Your task to perform on an android device: Add dell xps to the cart on walmart.com, then select checkout. Image 0: 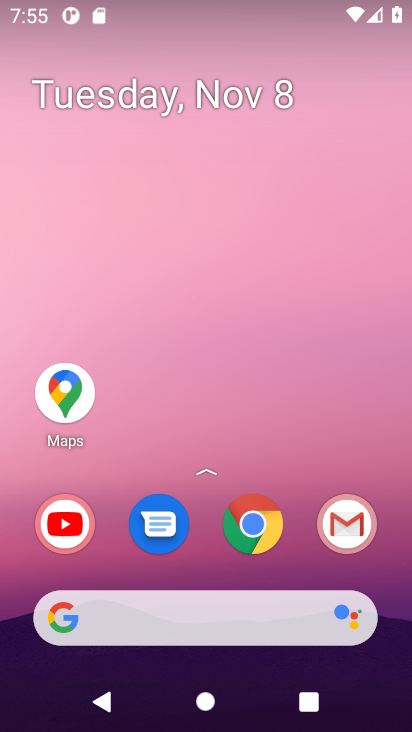
Step 0: click (263, 539)
Your task to perform on an android device: Add dell xps to the cart on walmart.com, then select checkout. Image 1: 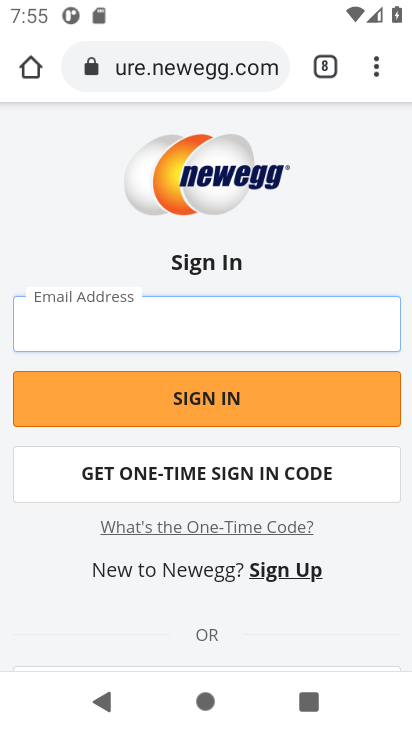
Step 1: click (201, 63)
Your task to perform on an android device: Add dell xps to the cart on walmart.com, then select checkout. Image 2: 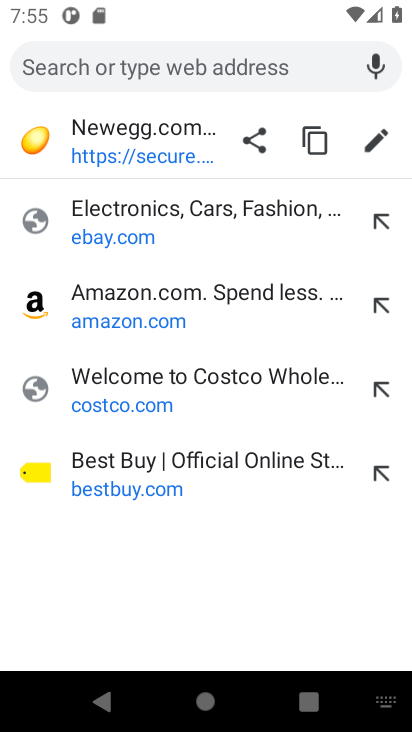
Step 2: type "walmart.com"
Your task to perform on an android device: Add dell xps to the cart on walmart.com, then select checkout. Image 3: 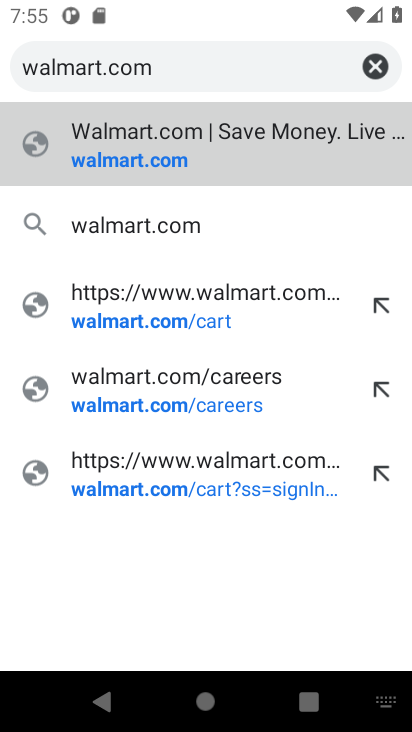
Step 3: click (166, 163)
Your task to perform on an android device: Add dell xps to the cart on walmart.com, then select checkout. Image 4: 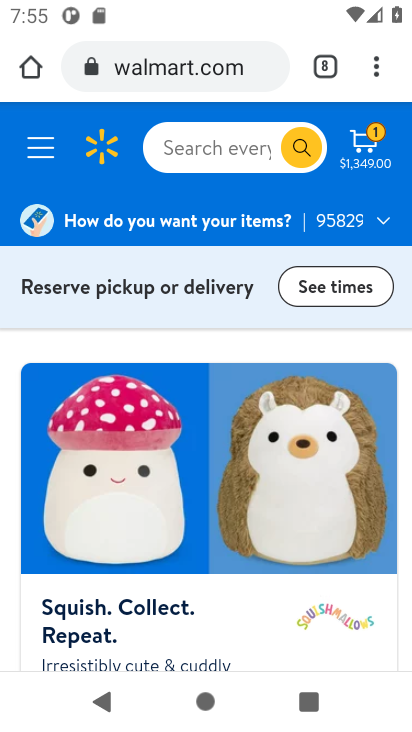
Step 4: click (177, 158)
Your task to perform on an android device: Add dell xps to the cart on walmart.com, then select checkout. Image 5: 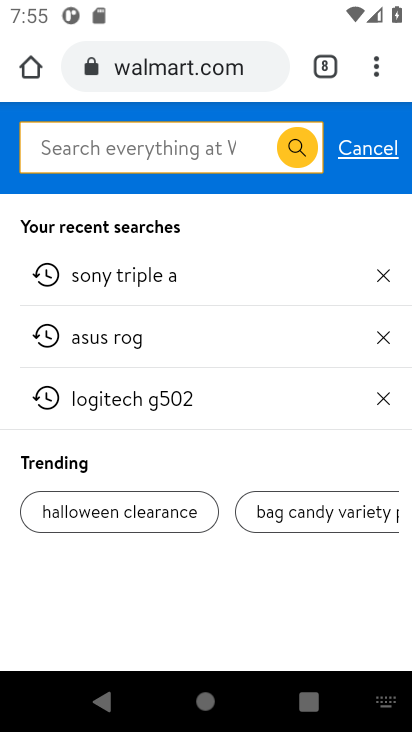
Step 5: type "dell xps "
Your task to perform on an android device: Add dell xps to the cart on walmart.com, then select checkout. Image 6: 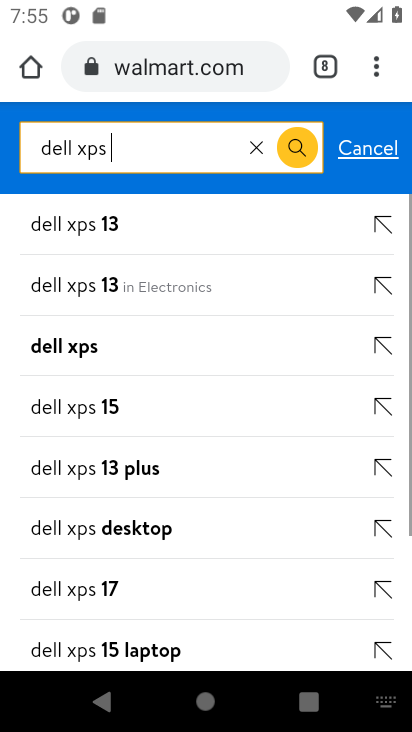
Step 6: click (77, 348)
Your task to perform on an android device: Add dell xps to the cart on walmart.com, then select checkout. Image 7: 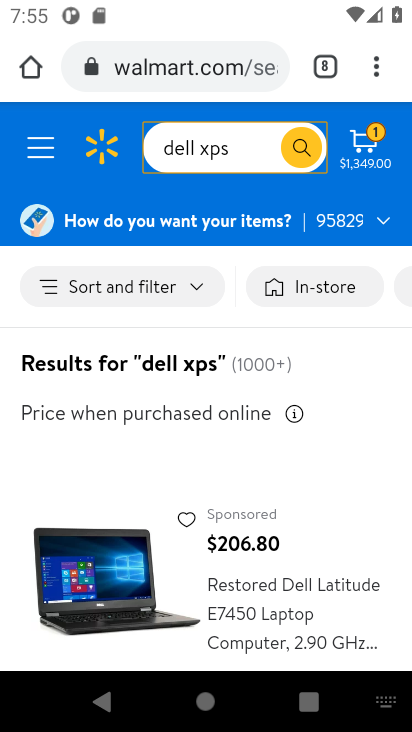
Step 7: drag from (253, 541) to (215, 285)
Your task to perform on an android device: Add dell xps to the cart on walmart.com, then select checkout. Image 8: 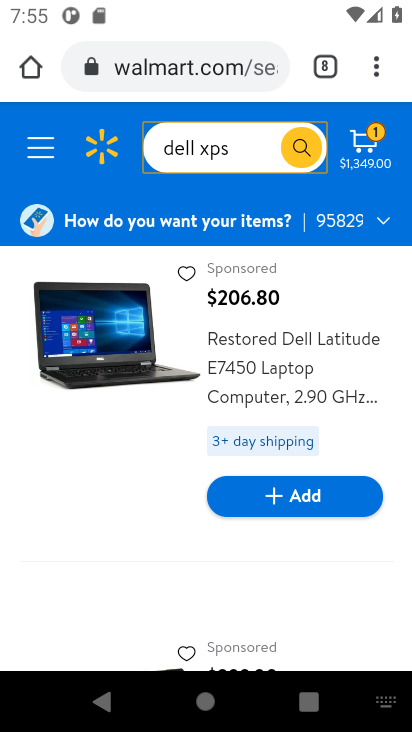
Step 8: drag from (181, 460) to (172, 237)
Your task to perform on an android device: Add dell xps to the cart on walmart.com, then select checkout. Image 9: 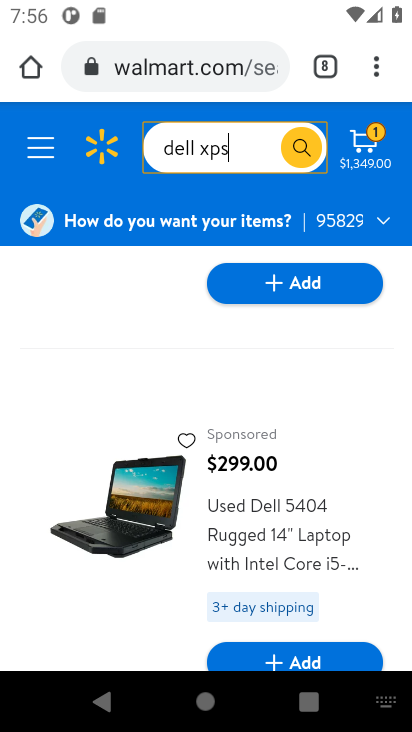
Step 9: drag from (218, 499) to (219, 313)
Your task to perform on an android device: Add dell xps to the cart on walmart.com, then select checkout. Image 10: 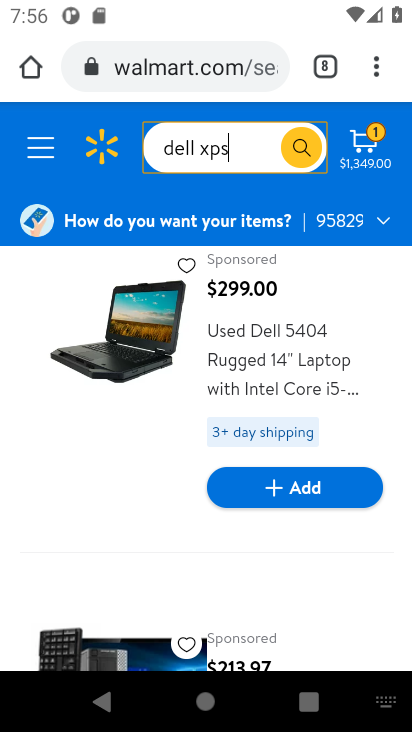
Step 10: drag from (178, 496) to (185, 293)
Your task to perform on an android device: Add dell xps to the cart on walmart.com, then select checkout. Image 11: 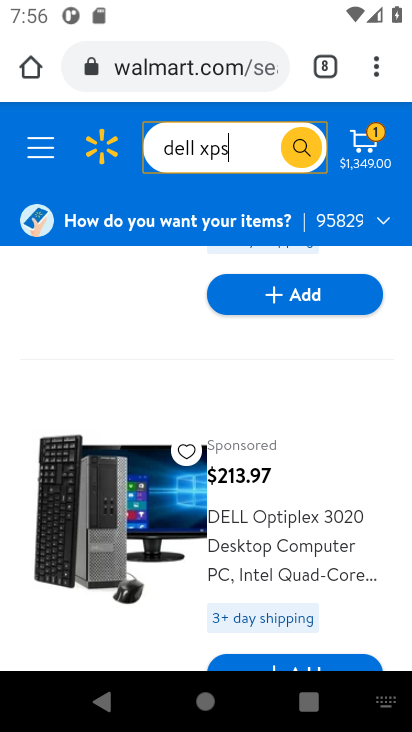
Step 11: drag from (170, 557) to (176, 341)
Your task to perform on an android device: Add dell xps to the cart on walmart.com, then select checkout. Image 12: 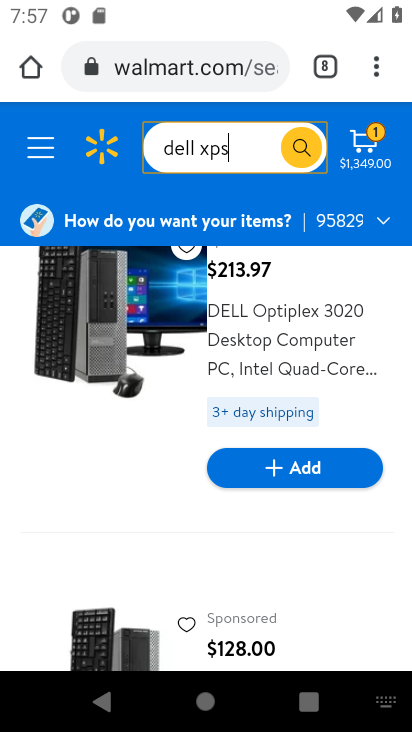
Step 12: drag from (156, 588) to (170, 351)
Your task to perform on an android device: Add dell xps to the cart on walmart.com, then select checkout. Image 13: 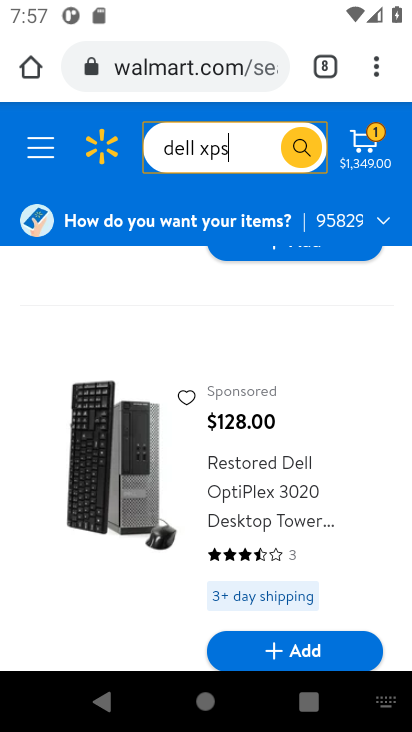
Step 13: drag from (182, 571) to (189, 344)
Your task to perform on an android device: Add dell xps to the cart on walmart.com, then select checkout. Image 14: 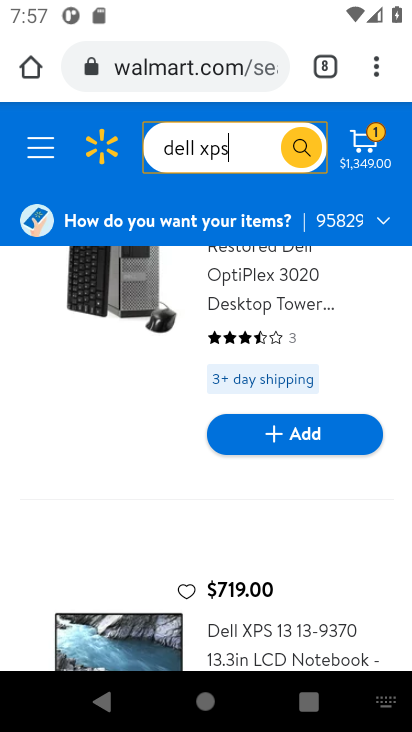
Step 14: drag from (172, 607) to (170, 374)
Your task to perform on an android device: Add dell xps to the cart on walmart.com, then select checkout. Image 15: 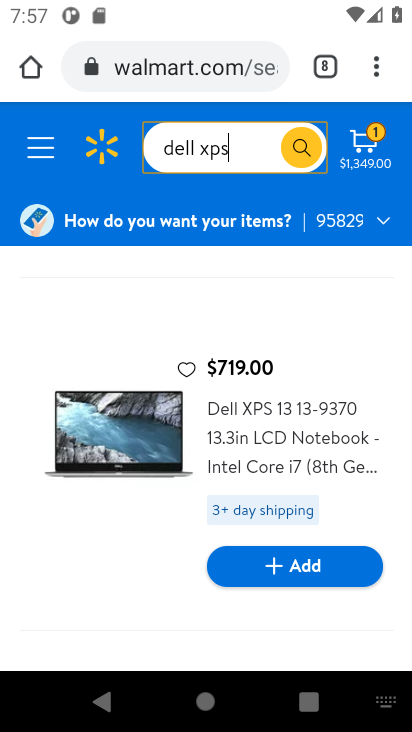
Step 15: click (277, 566)
Your task to perform on an android device: Add dell xps to the cart on walmart.com, then select checkout. Image 16: 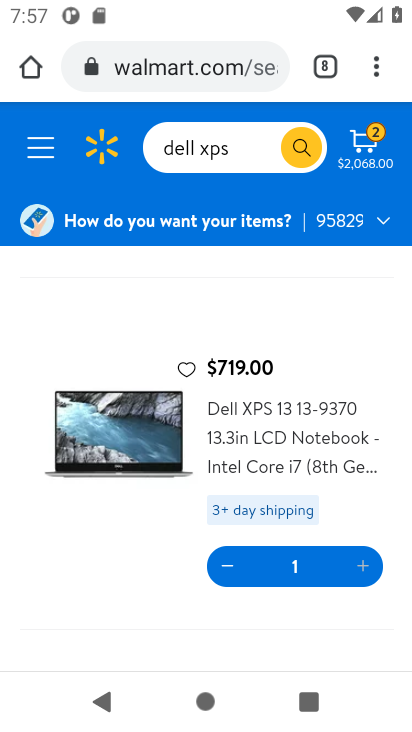
Step 16: click (359, 147)
Your task to perform on an android device: Add dell xps to the cart on walmart.com, then select checkout. Image 17: 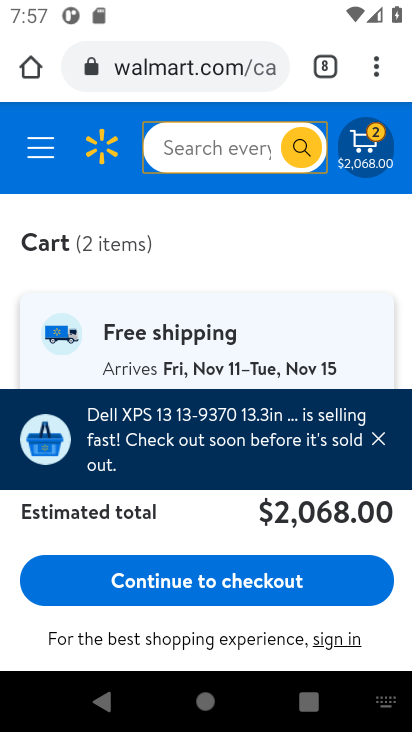
Step 17: click (206, 585)
Your task to perform on an android device: Add dell xps to the cart on walmart.com, then select checkout. Image 18: 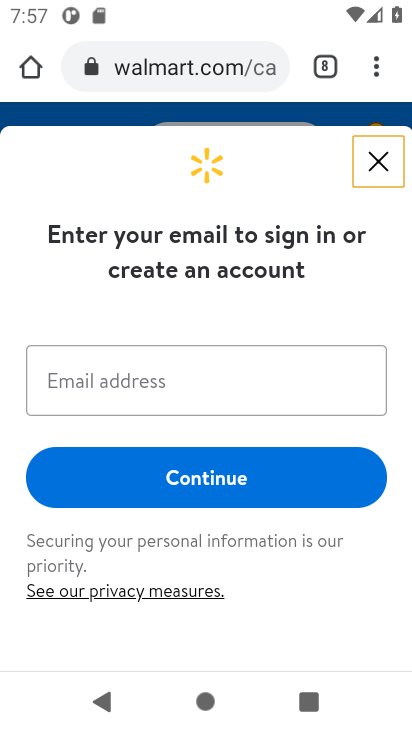
Step 18: task complete